Your task to perform on an android device: set the timer Image 0: 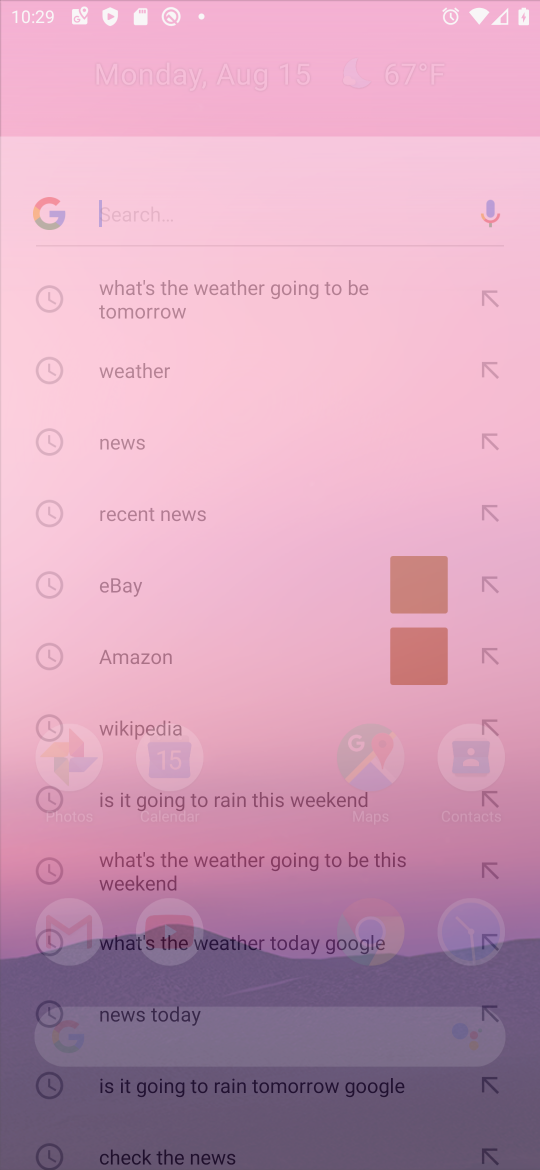
Step 0: press home button
Your task to perform on an android device: set the timer Image 1: 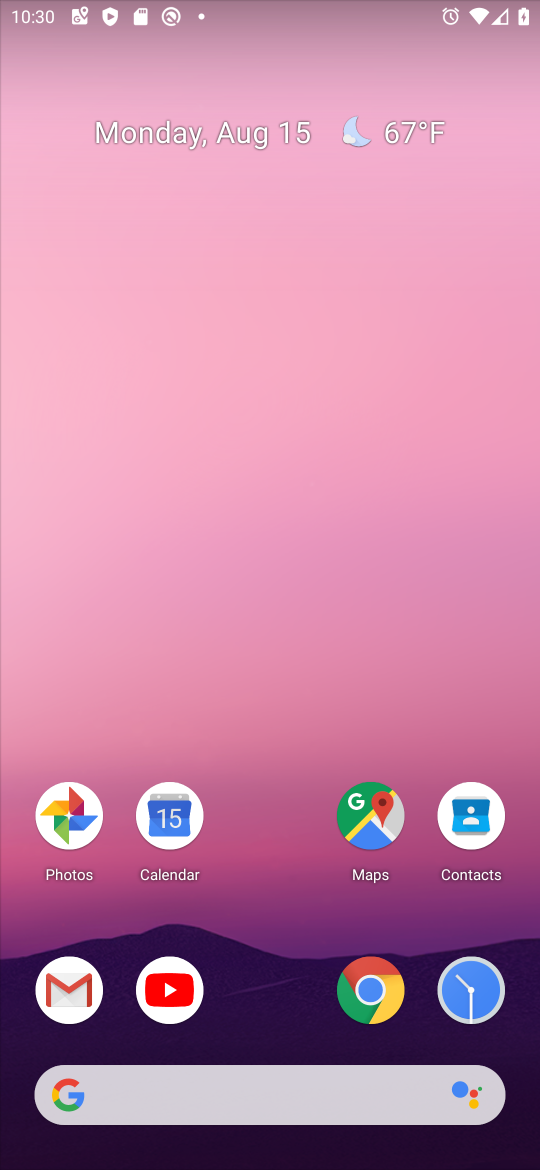
Step 1: click (454, 994)
Your task to perform on an android device: set the timer Image 2: 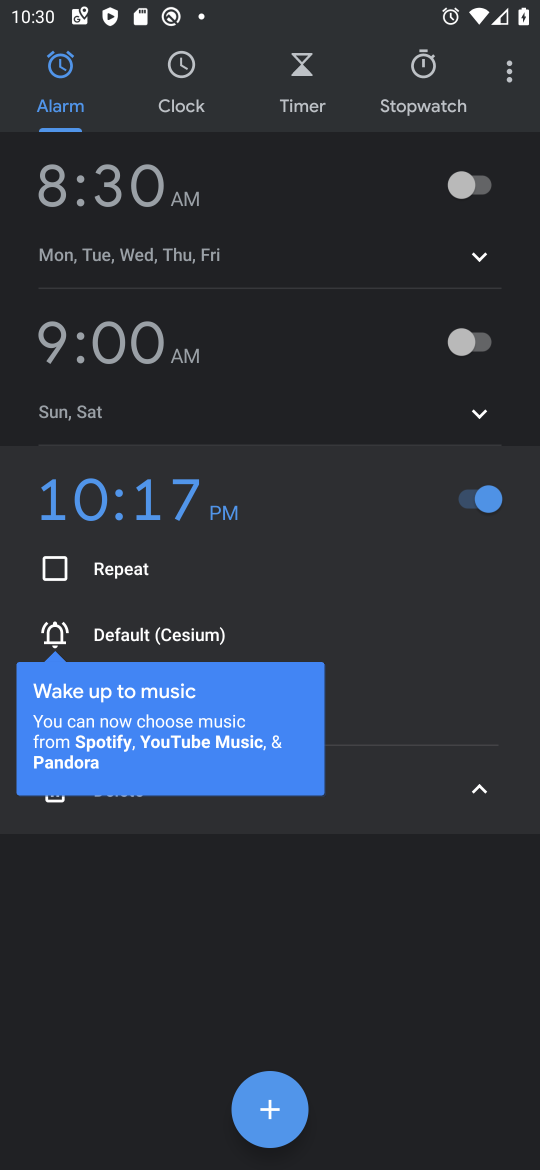
Step 2: click (305, 67)
Your task to perform on an android device: set the timer Image 3: 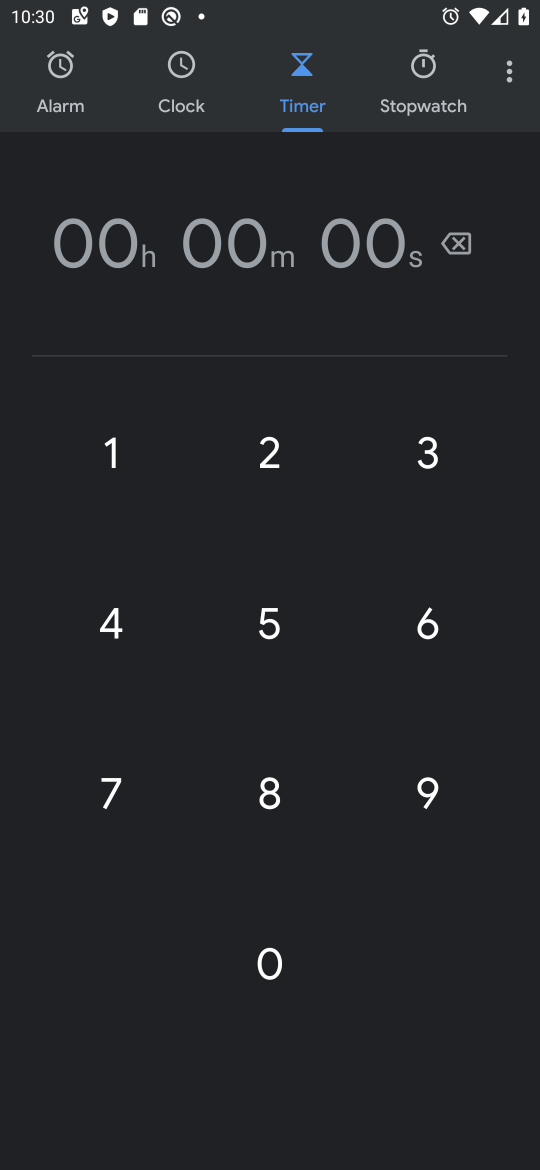
Step 3: click (123, 435)
Your task to perform on an android device: set the timer Image 4: 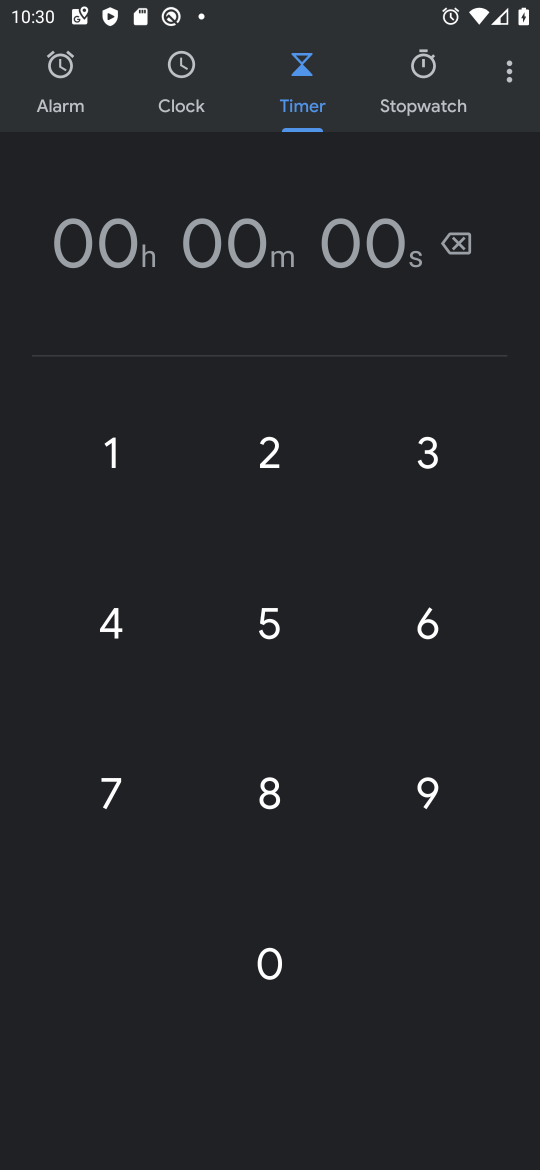
Step 4: click (123, 435)
Your task to perform on an android device: set the timer Image 5: 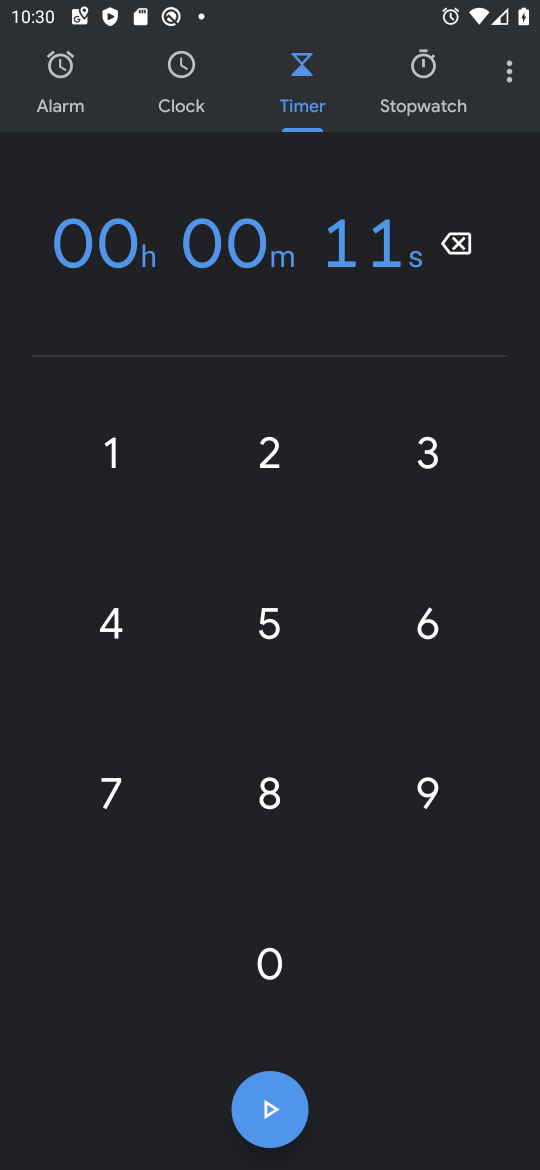
Step 5: click (124, 454)
Your task to perform on an android device: set the timer Image 6: 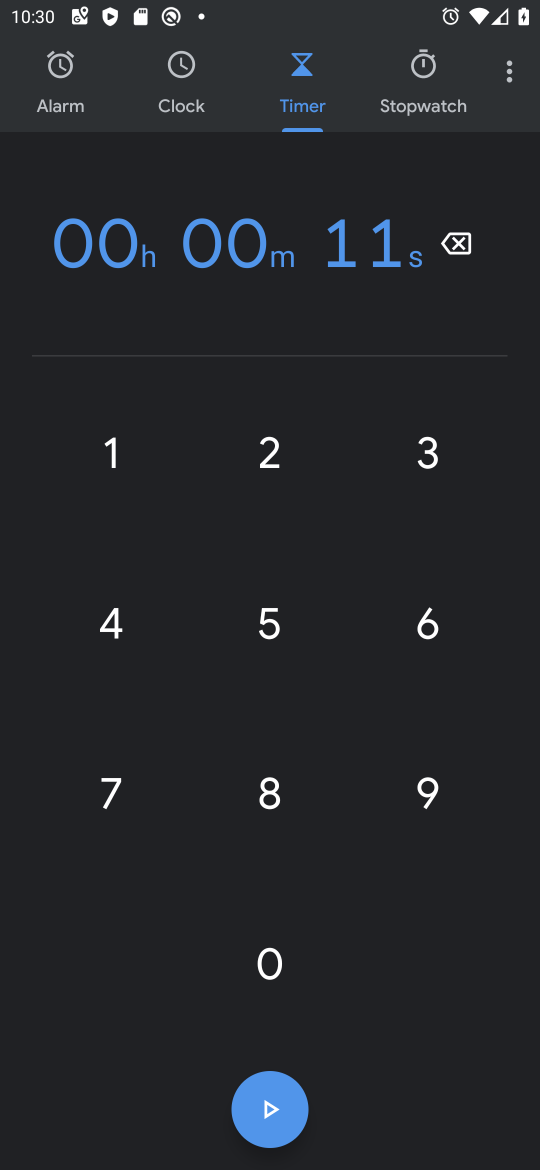
Step 6: click (124, 454)
Your task to perform on an android device: set the timer Image 7: 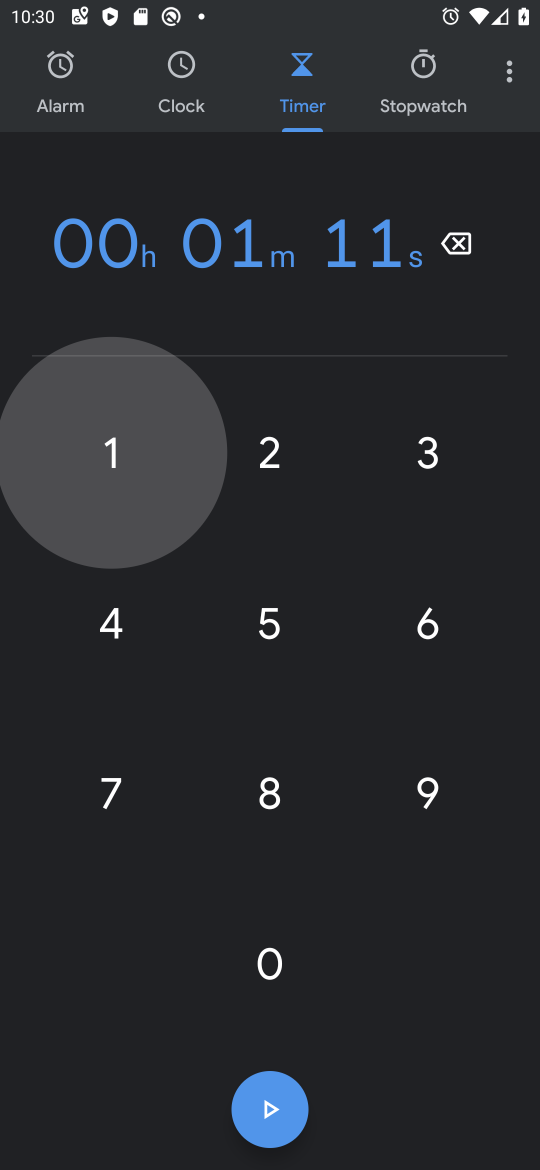
Step 7: click (124, 454)
Your task to perform on an android device: set the timer Image 8: 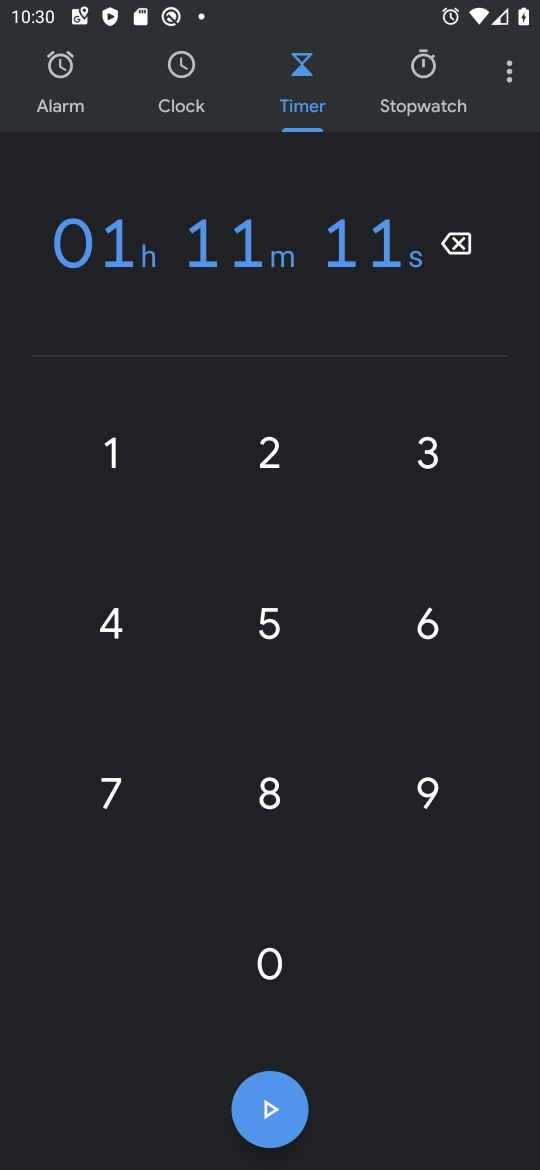
Step 8: click (124, 454)
Your task to perform on an android device: set the timer Image 9: 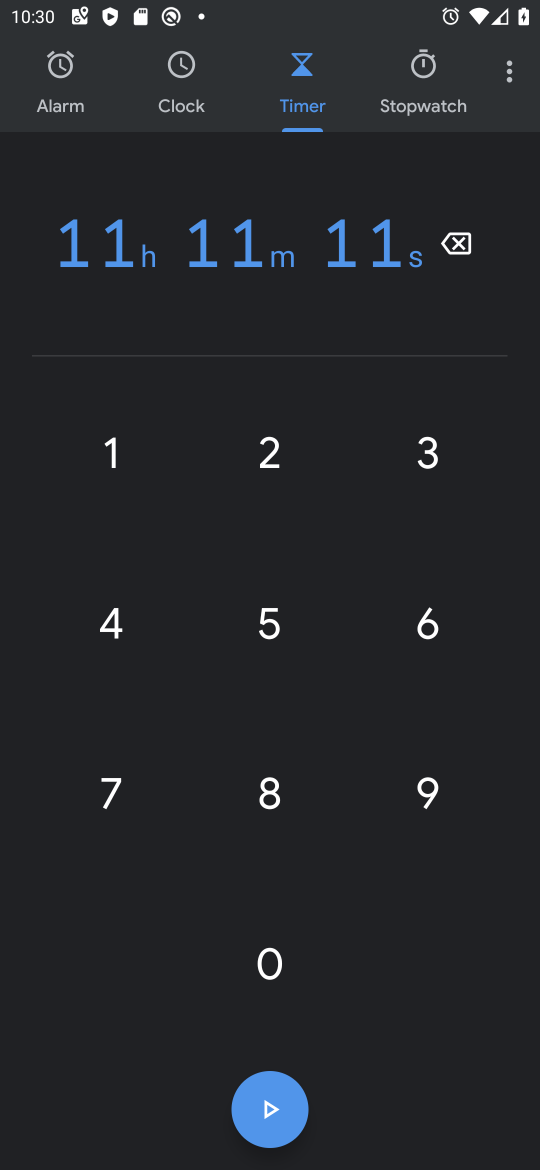
Step 9: task complete